Your task to perform on an android device: open app "DuckDuckGo Privacy Browser" (install if not already installed) and enter user name: "cleaving@outlook.com" and password: "freighters" Image 0: 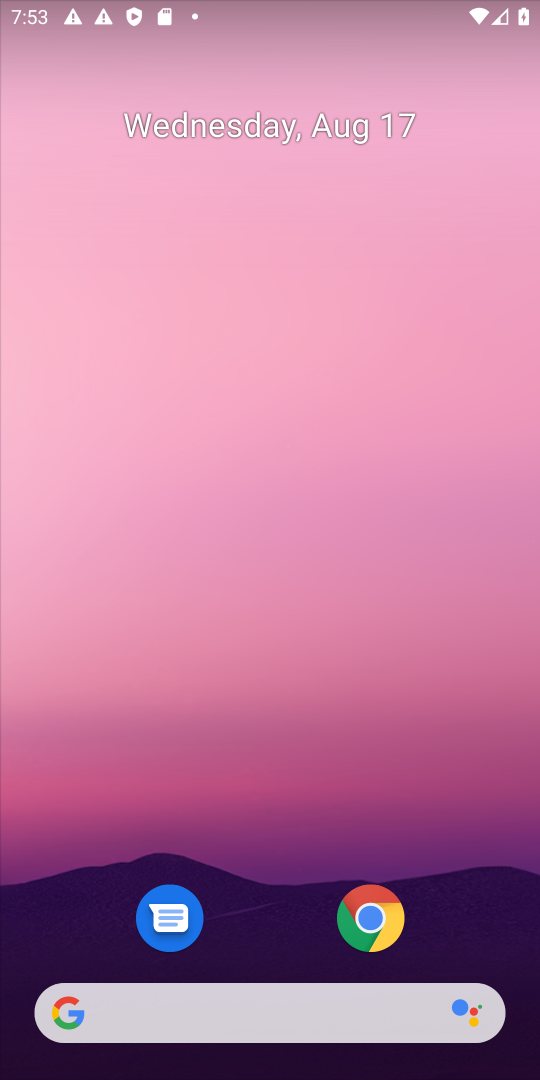
Step 0: drag from (256, 1006) to (383, 151)
Your task to perform on an android device: open app "DuckDuckGo Privacy Browser" (install if not already installed) and enter user name: "cleaving@outlook.com" and password: "freighters" Image 1: 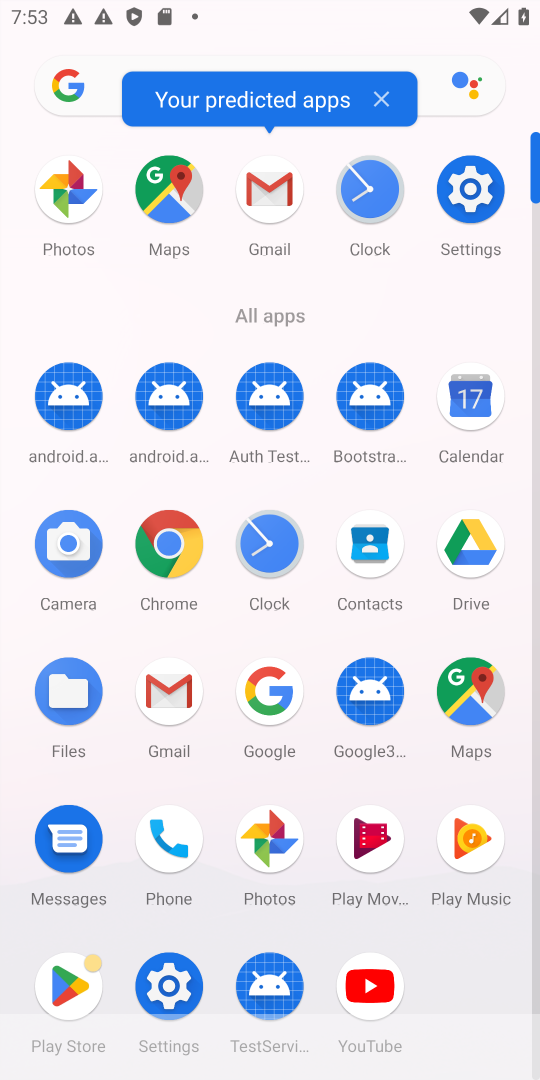
Step 1: click (61, 988)
Your task to perform on an android device: open app "DuckDuckGo Privacy Browser" (install if not already installed) and enter user name: "cleaving@outlook.com" and password: "freighters" Image 2: 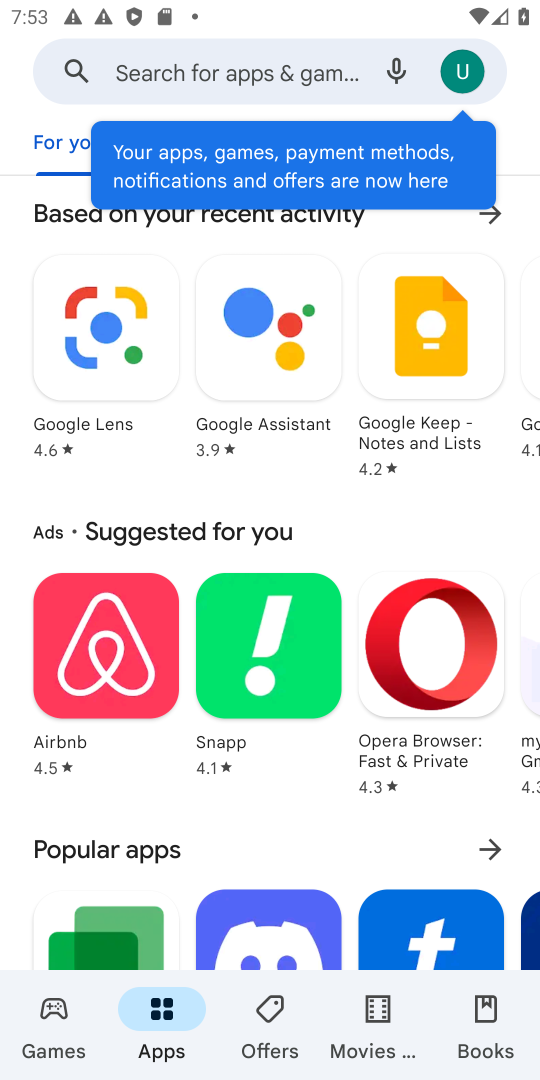
Step 2: click (213, 72)
Your task to perform on an android device: open app "DuckDuckGo Privacy Browser" (install if not already installed) and enter user name: "cleaving@outlook.com" and password: "freighters" Image 3: 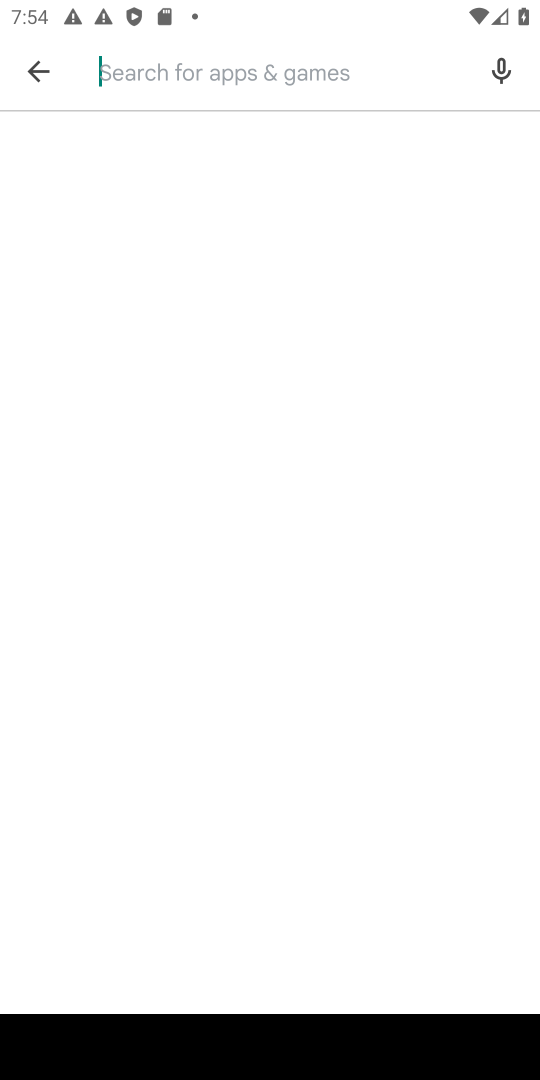
Step 3: type "DuckDuckGo Privacy Browser"
Your task to perform on an android device: open app "DuckDuckGo Privacy Browser" (install if not already installed) and enter user name: "cleaving@outlook.com" and password: "freighters" Image 4: 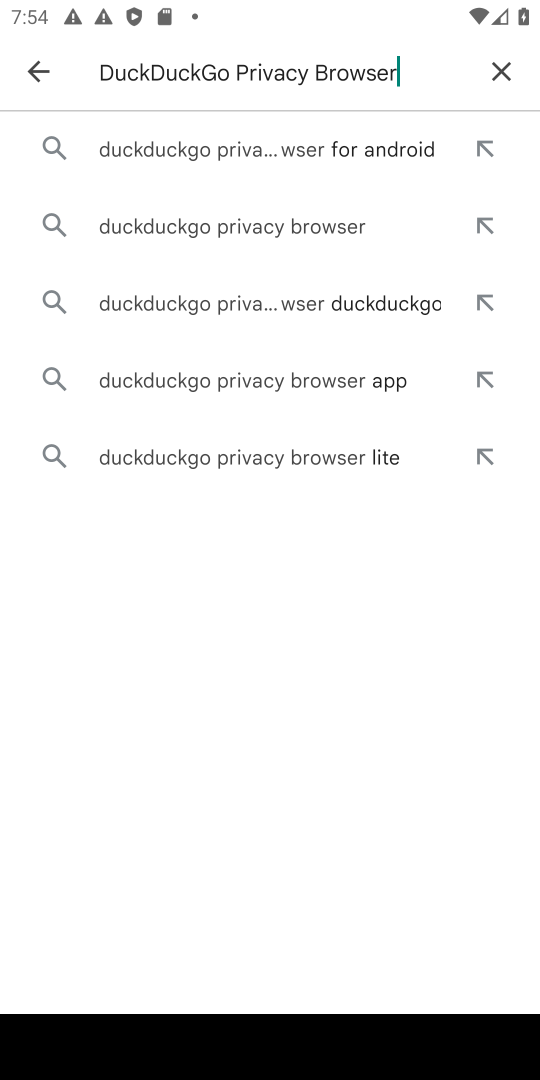
Step 4: click (275, 150)
Your task to perform on an android device: open app "DuckDuckGo Privacy Browser" (install if not already installed) and enter user name: "cleaving@outlook.com" and password: "freighters" Image 5: 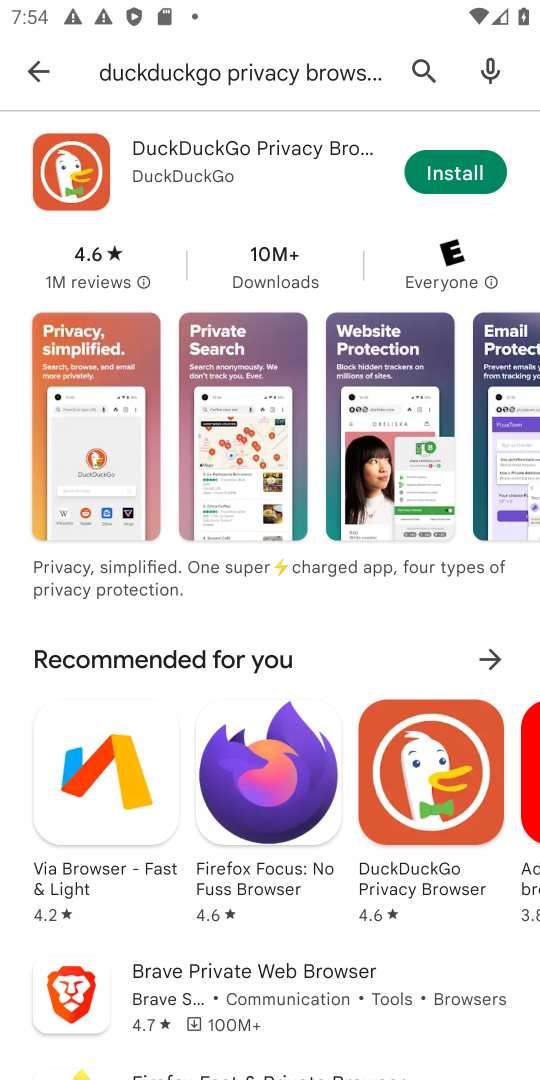
Step 5: click (448, 178)
Your task to perform on an android device: open app "DuckDuckGo Privacy Browser" (install if not already installed) and enter user name: "cleaving@outlook.com" and password: "freighters" Image 6: 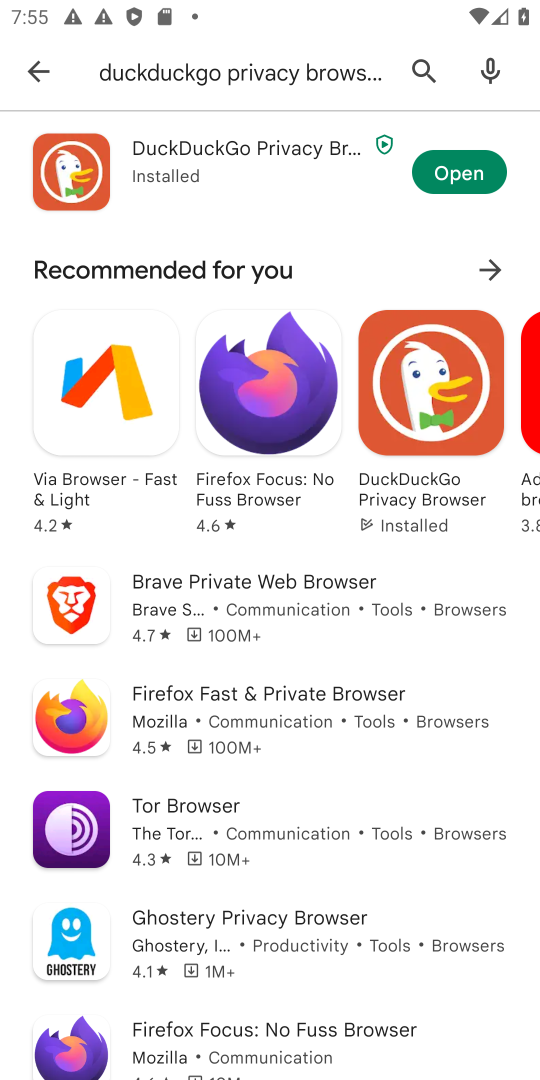
Step 6: click (469, 171)
Your task to perform on an android device: open app "DuckDuckGo Privacy Browser" (install if not already installed) and enter user name: "cleaving@outlook.com" and password: "freighters" Image 7: 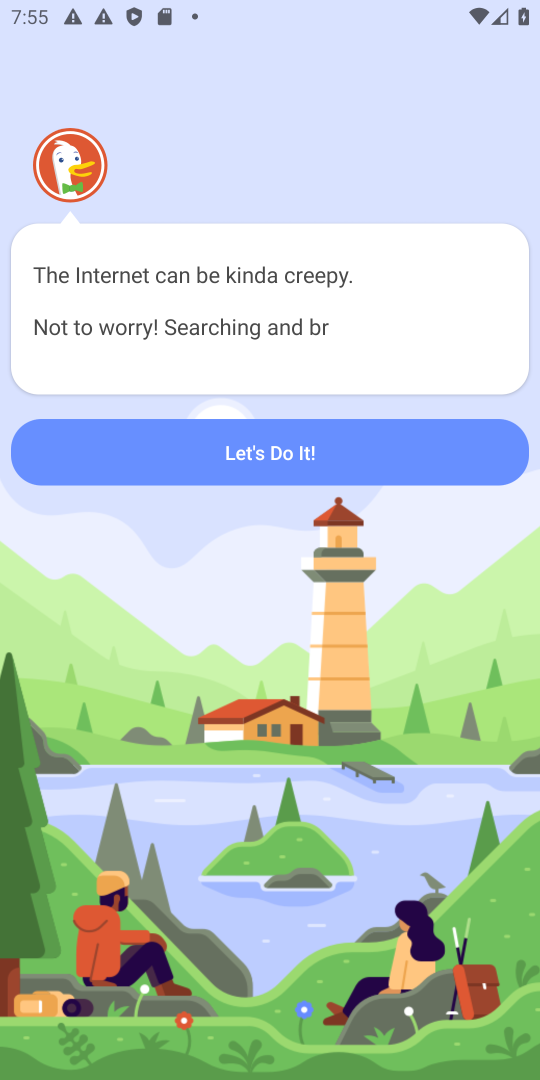
Step 7: click (292, 467)
Your task to perform on an android device: open app "DuckDuckGo Privacy Browser" (install if not already installed) and enter user name: "cleaving@outlook.com" and password: "freighters" Image 8: 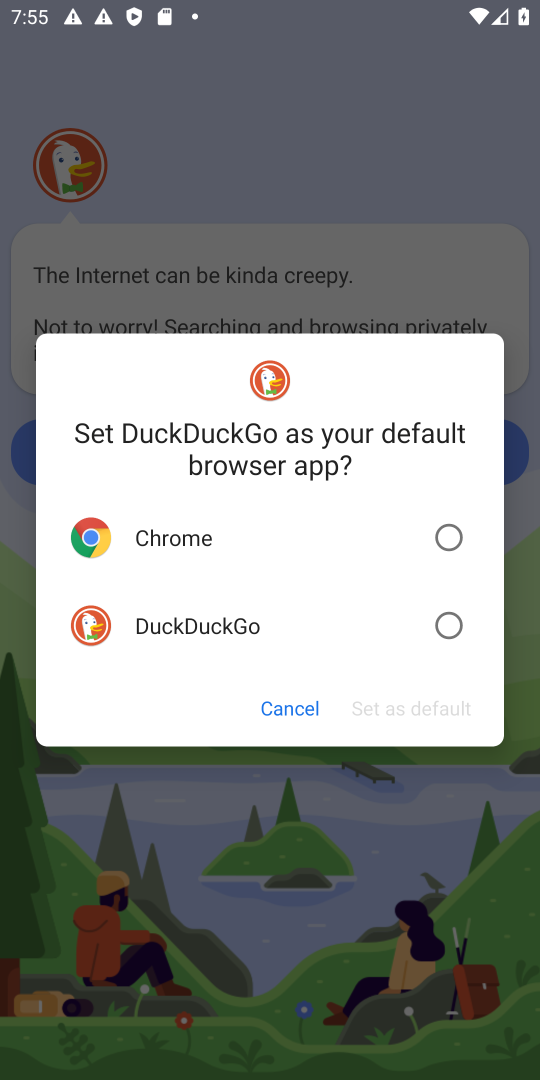
Step 8: click (445, 622)
Your task to perform on an android device: open app "DuckDuckGo Privacy Browser" (install if not already installed) and enter user name: "cleaving@outlook.com" and password: "freighters" Image 9: 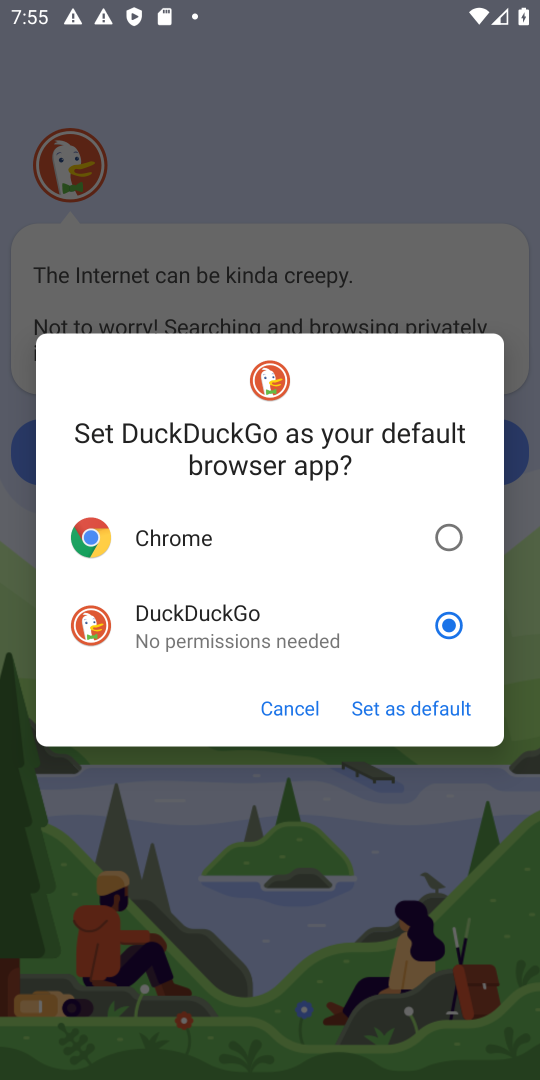
Step 9: task complete